Your task to perform on an android device: allow notifications from all sites in the chrome app Image 0: 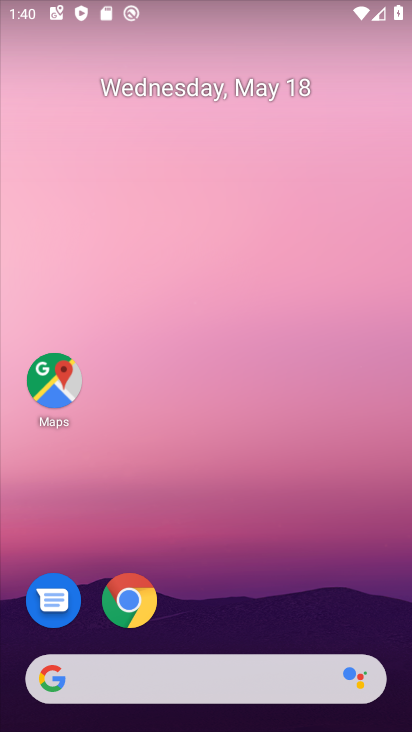
Step 0: click (127, 594)
Your task to perform on an android device: allow notifications from all sites in the chrome app Image 1: 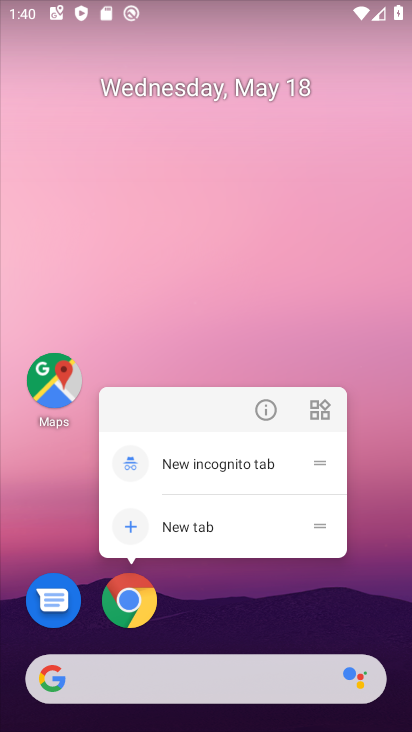
Step 1: click (125, 600)
Your task to perform on an android device: allow notifications from all sites in the chrome app Image 2: 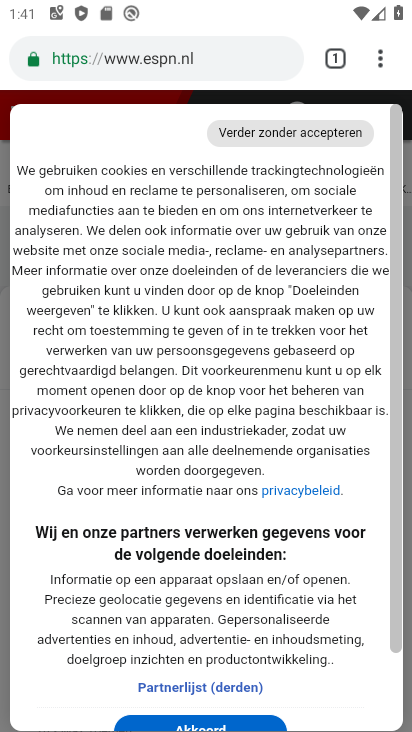
Step 2: click (381, 58)
Your task to perform on an android device: allow notifications from all sites in the chrome app Image 3: 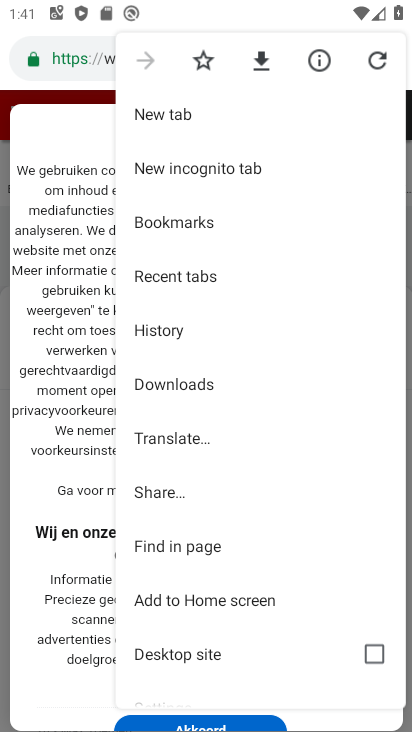
Step 3: drag from (221, 462) to (252, 341)
Your task to perform on an android device: allow notifications from all sites in the chrome app Image 4: 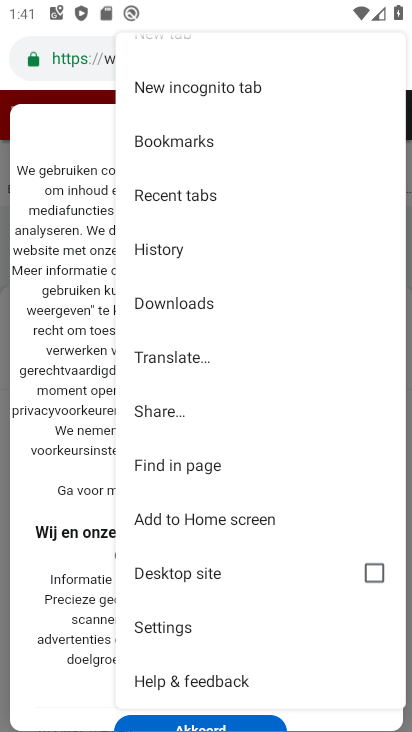
Step 4: click (163, 627)
Your task to perform on an android device: allow notifications from all sites in the chrome app Image 5: 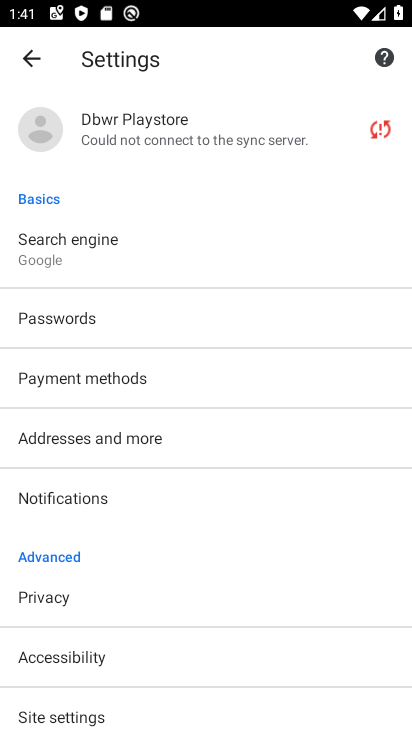
Step 5: drag from (136, 589) to (215, 475)
Your task to perform on an android device: allow notifications from all sites in the chrome app Image 6: 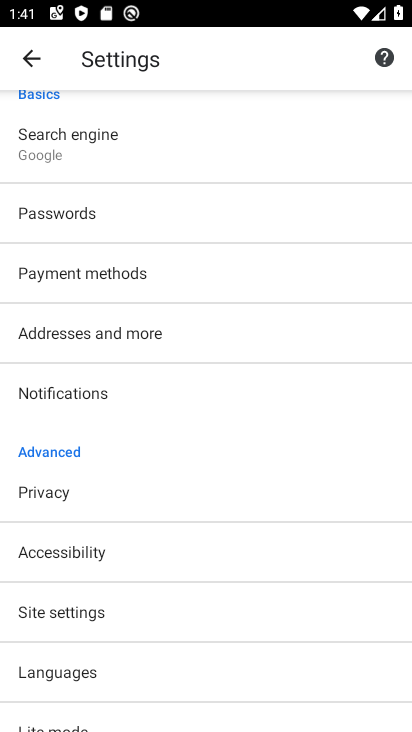
Step 6: drag from (109, 613) to (151, 551)
Your task to perform on an android device: allow notifications from all sites in the chrome app Image 7: 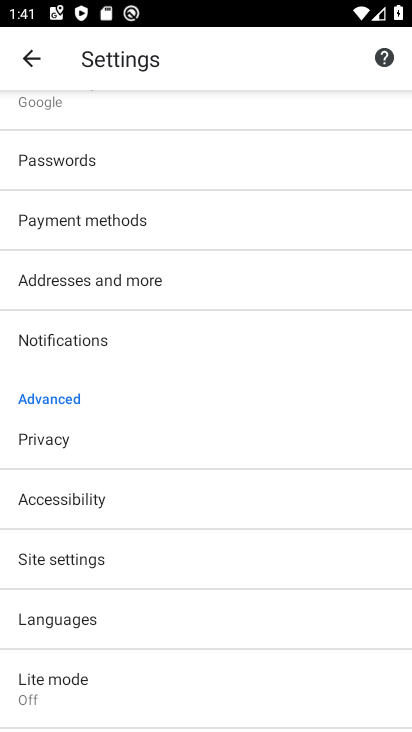
Step 7: click (73, 555)
Your task to perform on an android device: allow notifications from all sites in the chrome app Image 8: 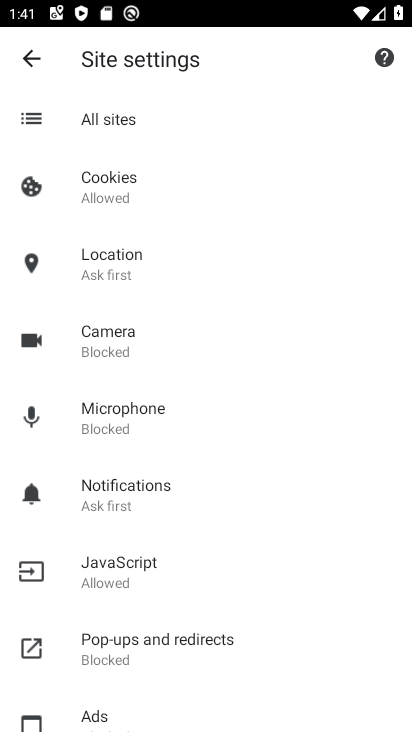
Step 8: drag from (134, 548) to (171, 472)
Your task to perform on an android device: allow notifications from all sites in the chrome app Image 9: 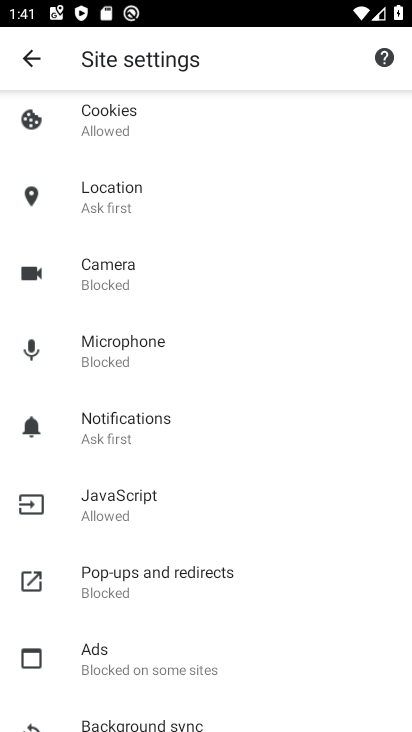
Step 9: click (133, 423)
Your task to perform on an android device: allow notifications from all sites in the chrome app Image 10: 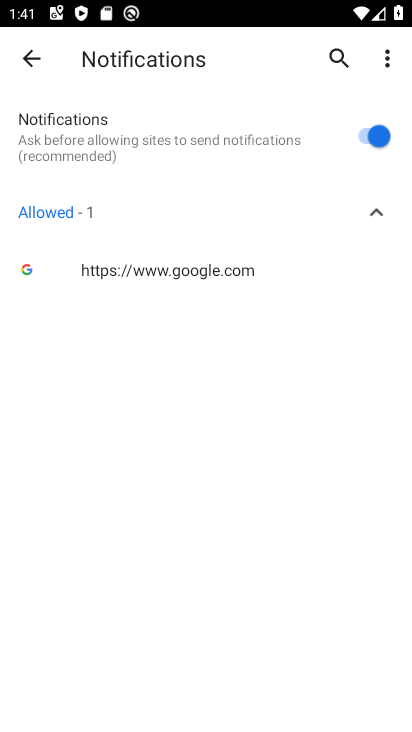
Step 10: task complete